Your task to perform on an android device: Show me the alarms in the clock app Image 0: 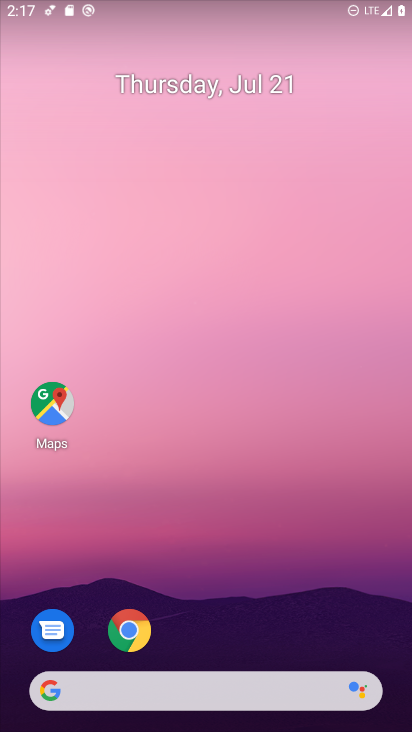
Step 0: drag from (250, 559) to (233, 0)
Your task to perform on an android device: Show me the alarms in the clock app Image 1: 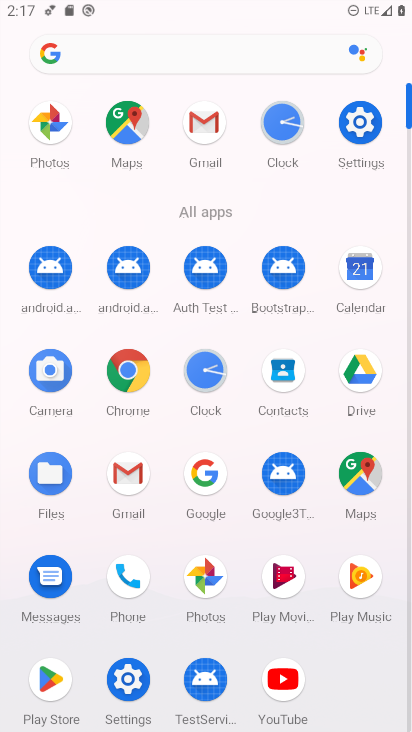
Step 1: click (209, 376)
Your task to perform on an android device: Show me the alarms in the clock app Image 2: 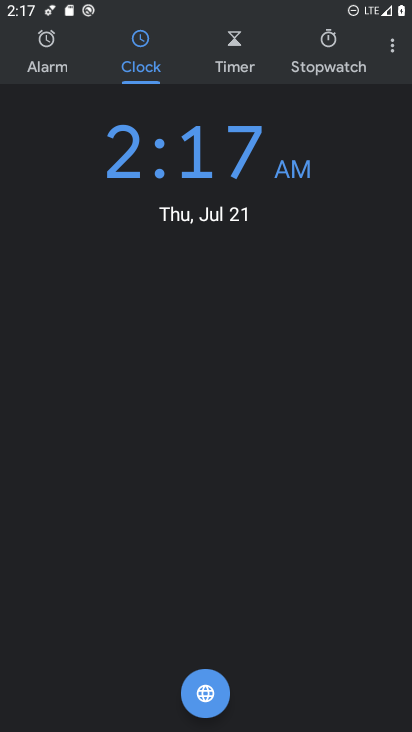
Step 2: click (46, 66)
Your task to perform on an android device: Show me the alarms in the clock app Image 3: 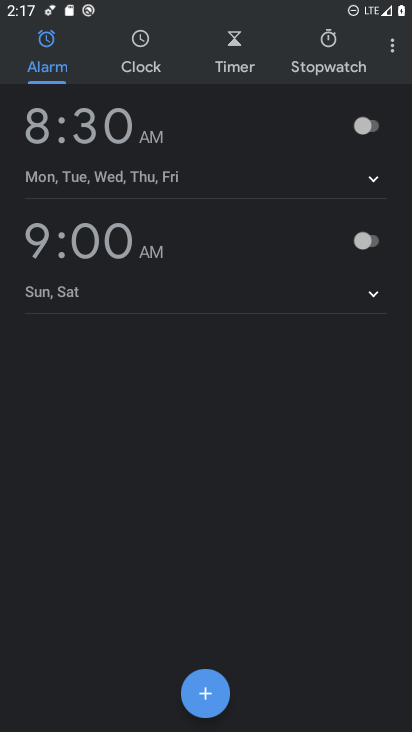
Step 3: task complete